Your task to perform on an android device: Go to settings Image 0: 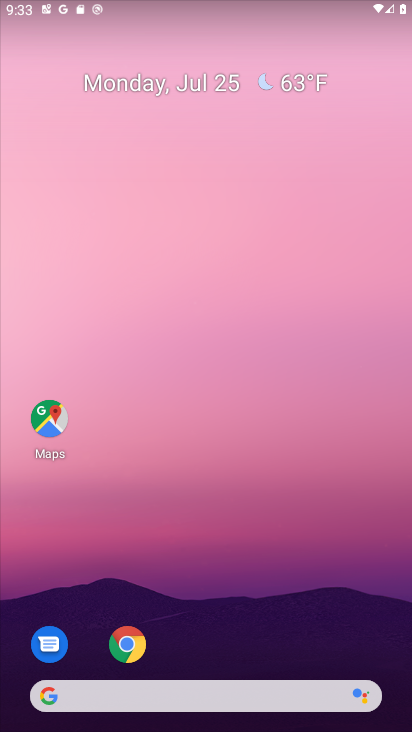
Step 0: drag from (219, 640) to (188, 18)
Your task to perform on an android device: Go to settings Image 1: 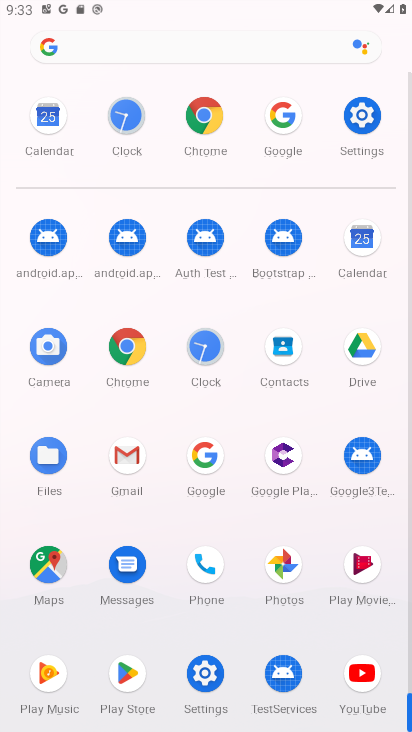
Step 1: click (355, 117)
Your task to perform on an android device: Go to settings Image 2: 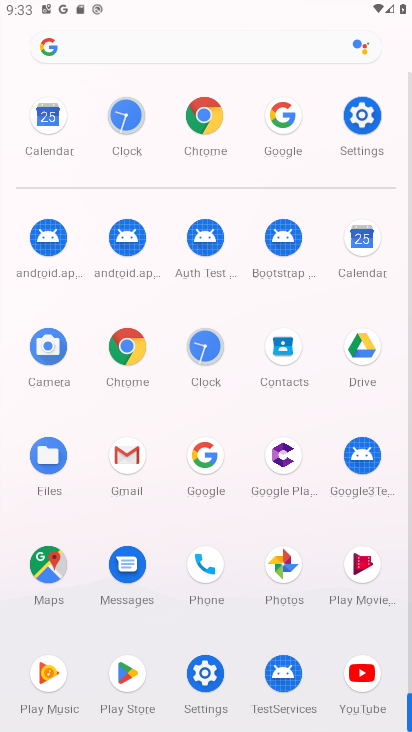
Step 2: click (356, 117)
Your task to perform on an android device: Go to settings Image 3: 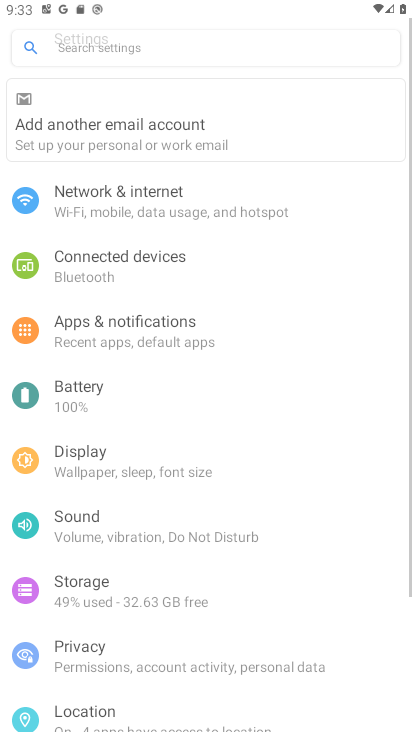
Step 3: click (359, 113)
Your task to perform on an android device: Go to settings Image 4: 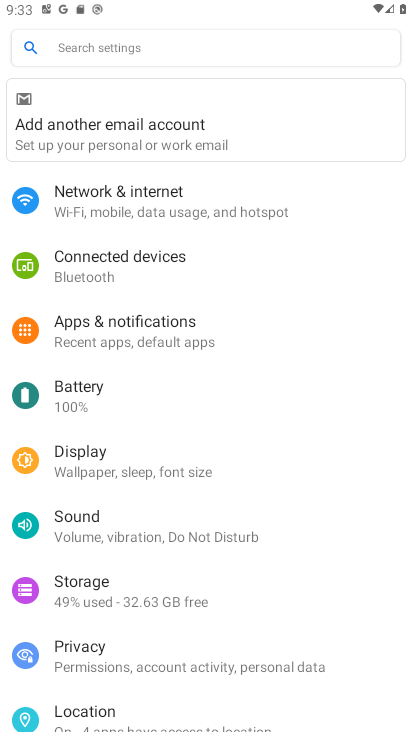
Step 4: drag from (186, 565) to (144, 185)
Your task to perform on an android device: Go to settings Image 5: 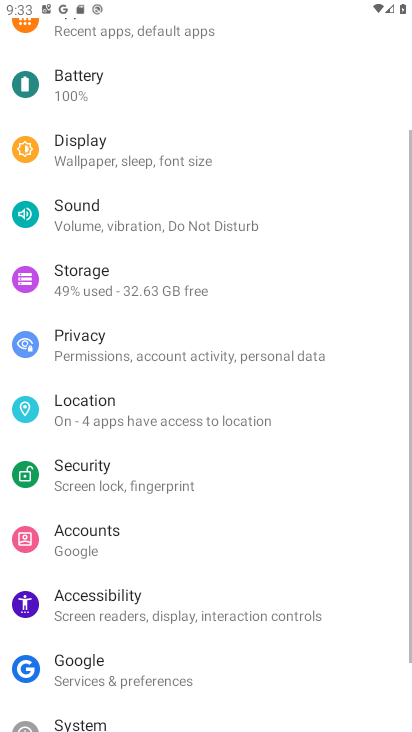
Step 5: drag from (133, 538) to (128, 167)
Your task to perform on an android device: Go to settings Image 6: 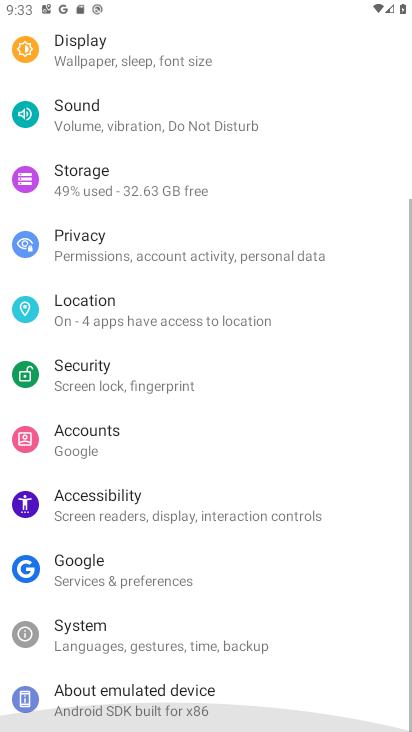
Step 6: drag from (168, 407) to (168, 144)
Your task to perform on an android device: Go to settings Image 7: 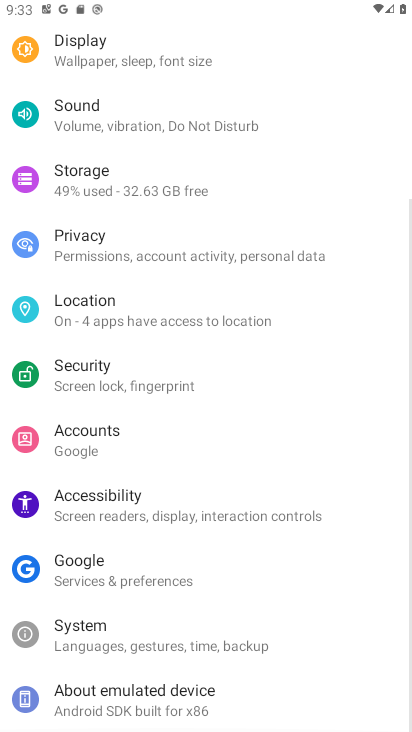
Step 7: click (211, 438)
Your task to perform on an android device: Go to settings Image 8: 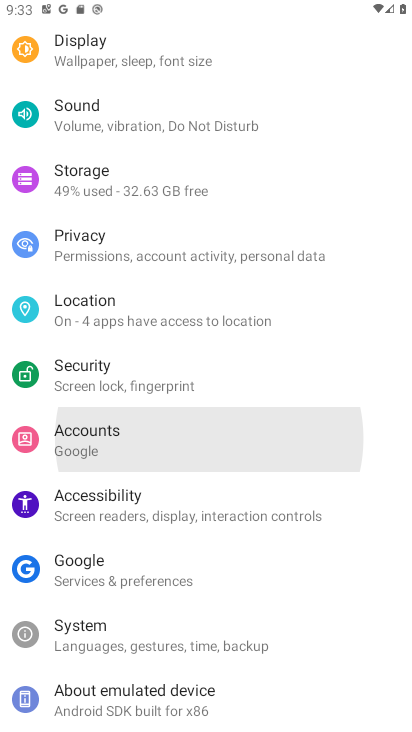
Step 8: drag from (142, 509) to (133, 218)
Your task to perform on an android device: Go to settings Image 9: 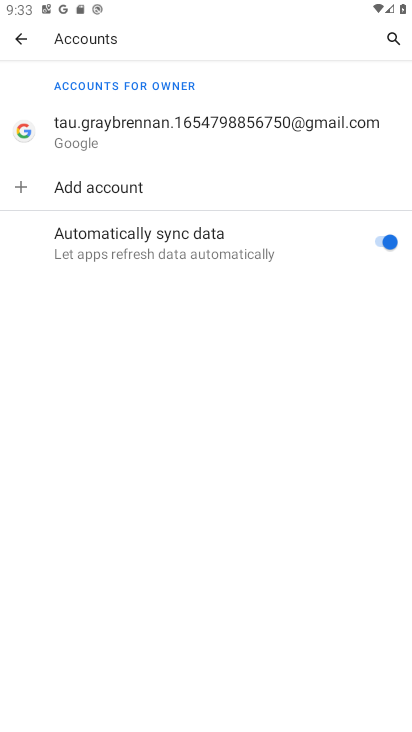
Step 9: click (28, 29)
Your task to perform on an android device: Go to settings Image 10: 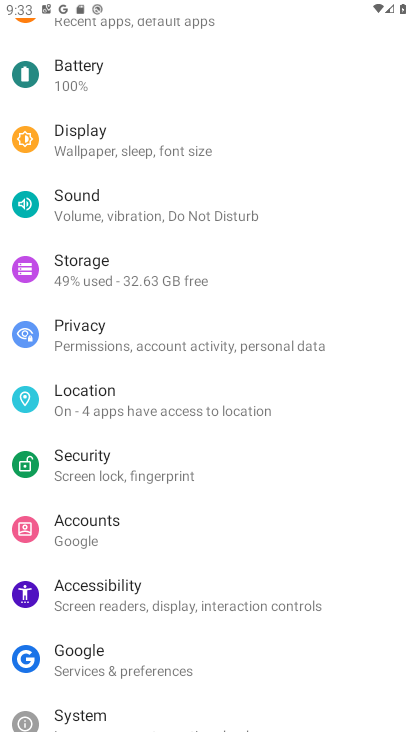
Step 10: task complete